Your task to perform on an android device: turn on priority inbox in the gmail app Image 0: 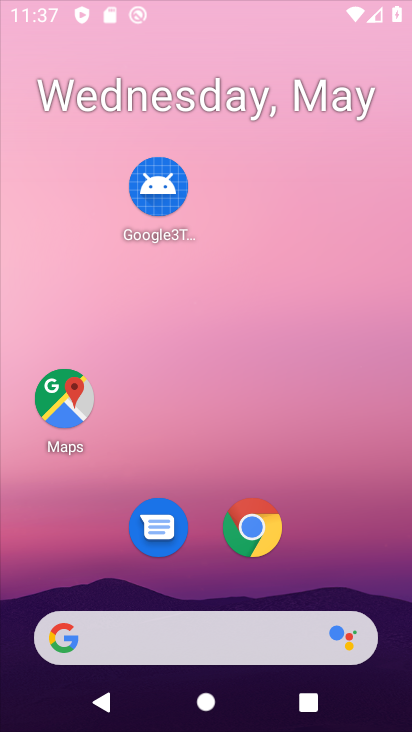
Step 0: press home button
Your task to perform on an android device: turn on priority inbox in the gmail app Image 1: 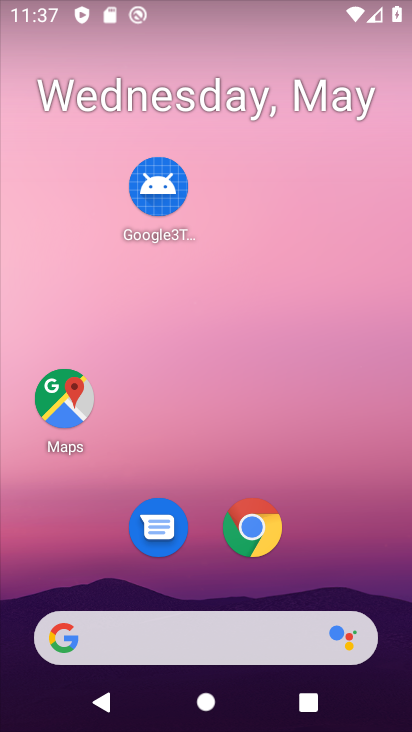
Step 1: drag from (220, 583) to (220, 173)
Your task to perform on an android device: turn on priority inbox in the gmail app Image 2: 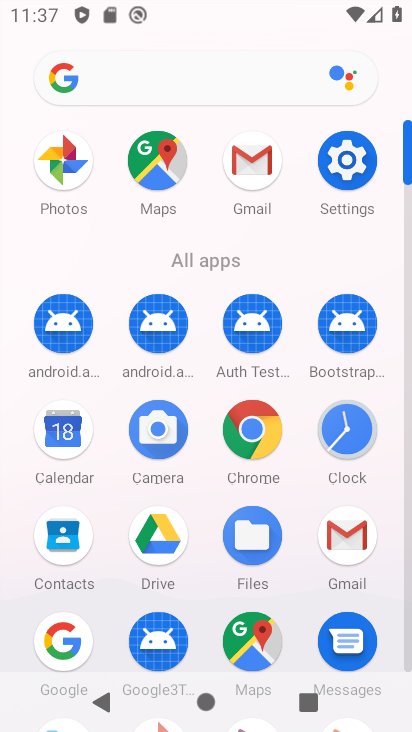
Step 2: click (249, 155)
Your task to perform on an android device: turn on priority inbox in the gmail app Image 3: 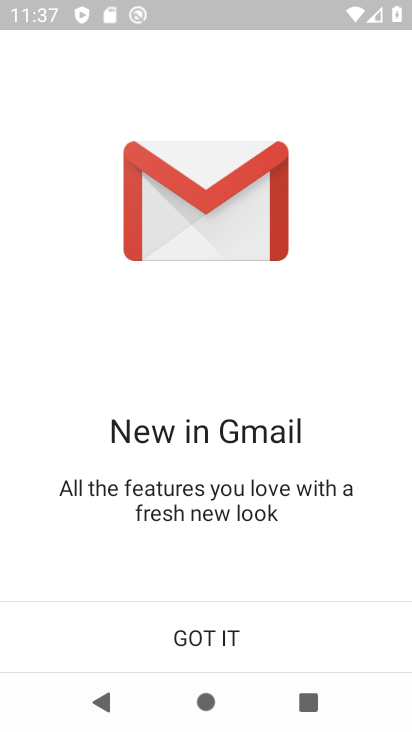
Step 3: click (225, 635)
Your task to perform on an android device: turn on priority inbox in the gmail app Image 4: 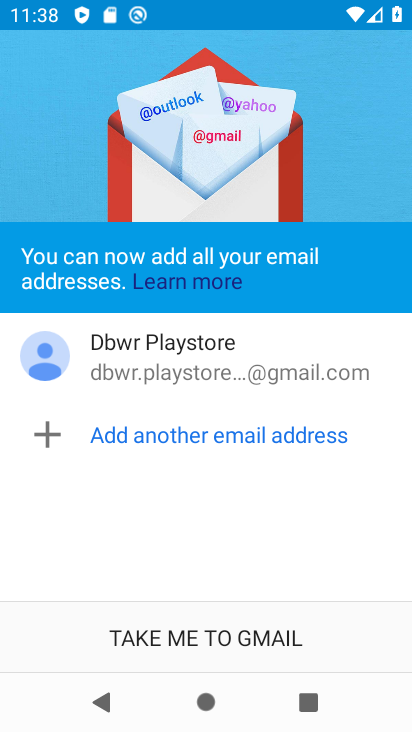
Step 4: click (216, 635)
Your task to perform on an android device: turn on priority inbox in the gmail app Image 5: 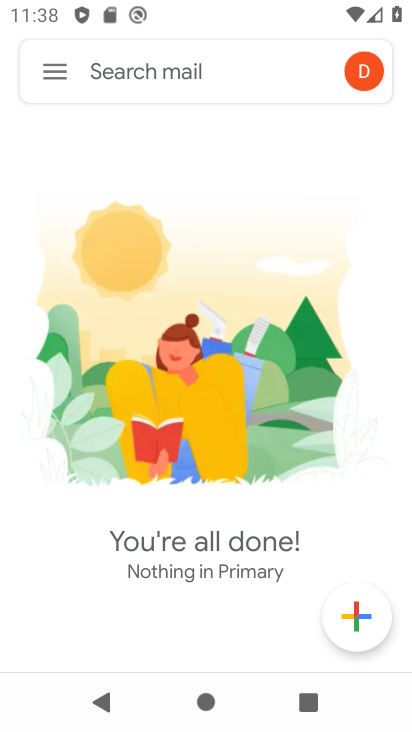
Step 5: click (47, 50)
Your task to perform on an android device: turn on priority inbox in the gmail app Image 6: 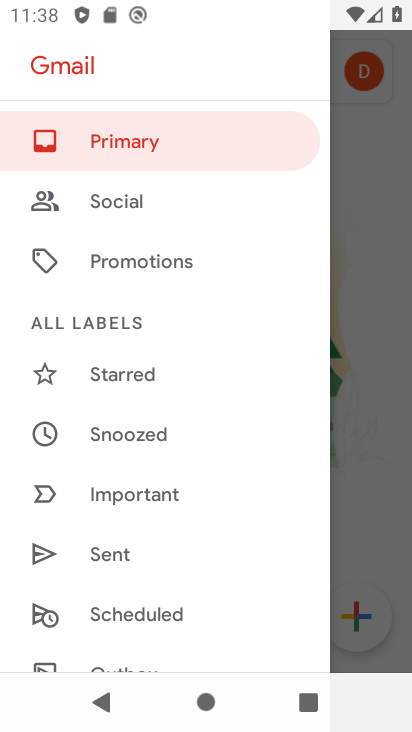
Step 6: drag from (149, 549) to (146, 156)
Your task to perform on an android device: turn on priority inbox in the gmail app Image 7: 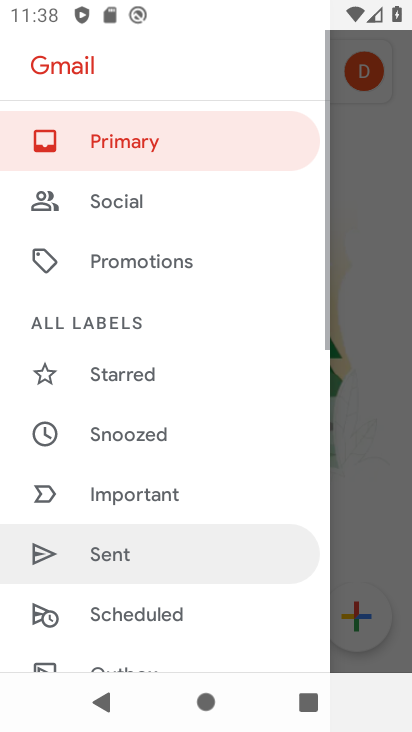
Step 7: click (138, 49)
Your task to perform on an android device: turn on priority inbox in the gmail app Image 8: 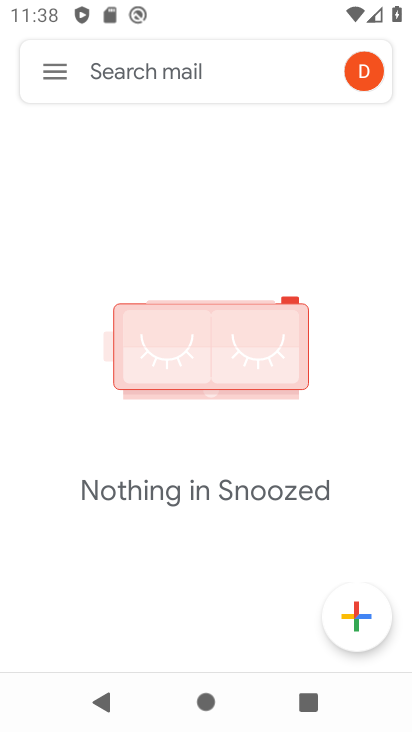
Step 8: drag from (148, 526) to (169, 80)
Your task to perform on an android device: turn on priority inbox in the gmail app Image 9: 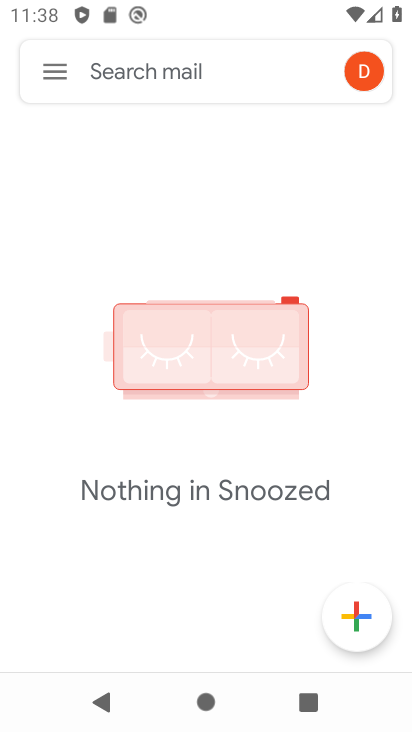
Step 9: click (44, 70)
Your task to perform on an android device: turn on priority inbox in the gmail app Image 10: 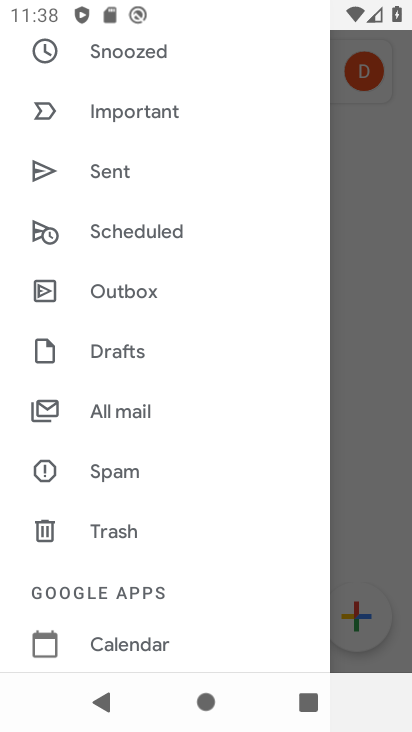
Step 10: drag from (166, 643) to (199, 72)
Your task to perform on an android device: turn on priority inbox in the gmail app Image 11: 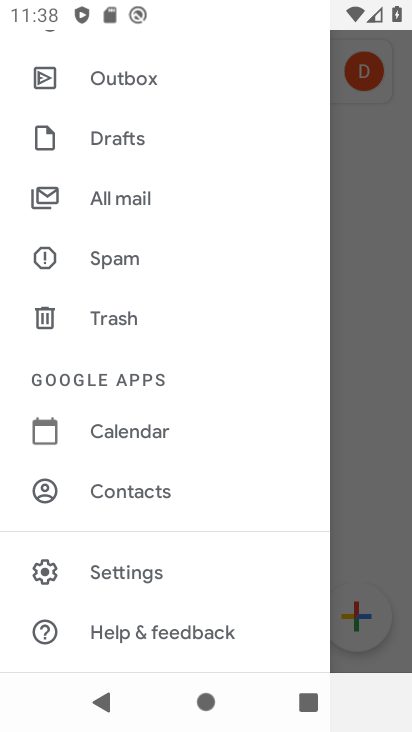
Step 11: click (173, 561)
Your task to perform on an android device: turn on priority inbox in the gmail app Image 12: 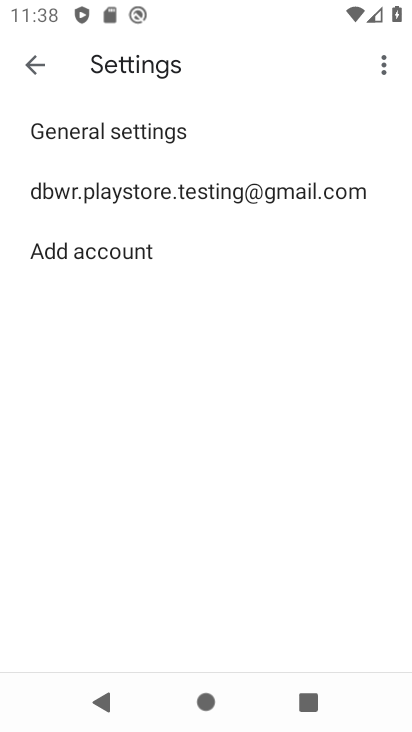
Step 12: click (145, 190)
Your task to perform on an android device: turn on priority inbox in the gmail app Image 13: 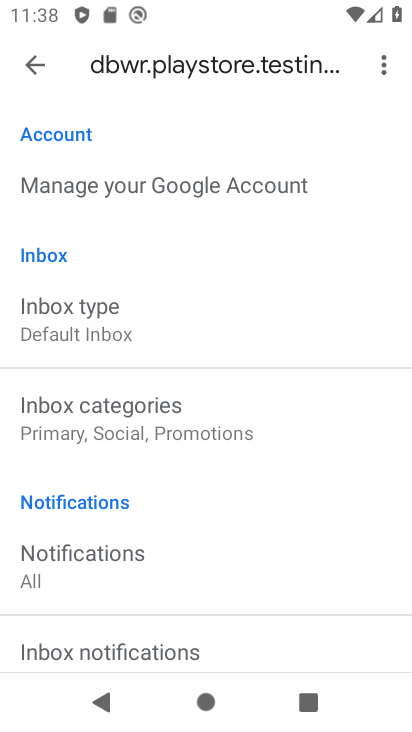
Step 13: click (144, 321)
Your task to perform on an android device: turn on priority inbox in the gmail app Image 14: 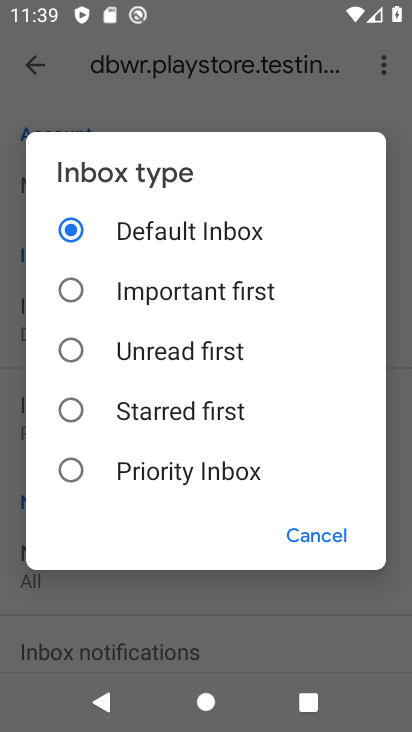
Step 14: click (63, 470)
Your task to perform on an android device: turn on priority inbox in the gmail app Image 15: 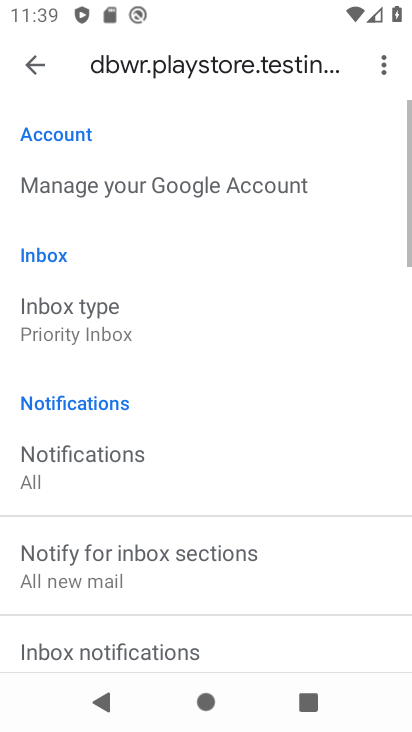
Step 15: task complete